Your task to perform on an android device: Go to Reddit.com Image 0: 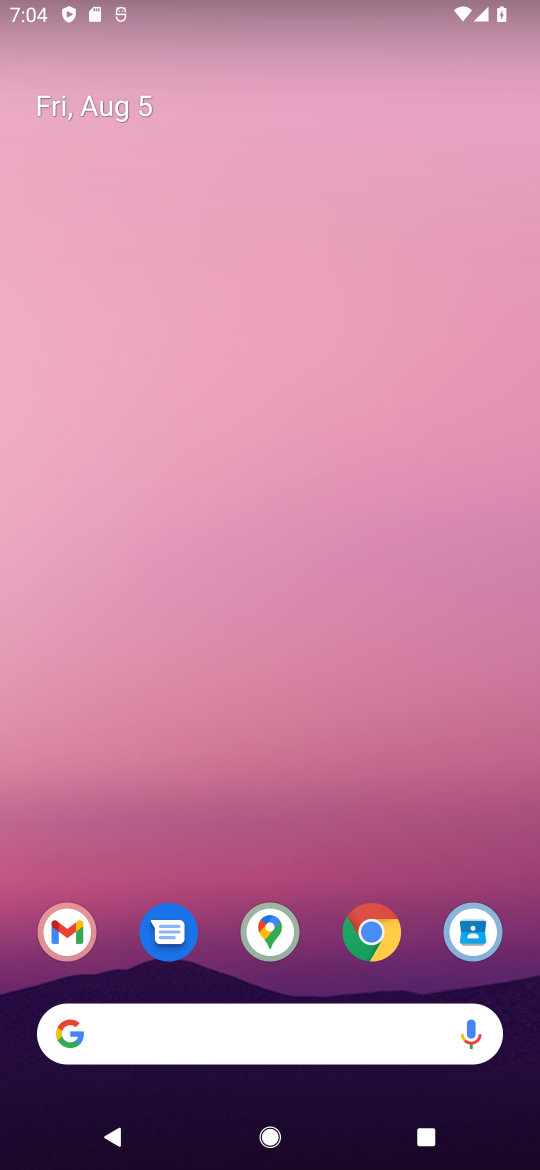
Step 0: drag from (330, 802) to (430, 117)
Your task to perform on an android device: Go to Reddit.com Image 1: 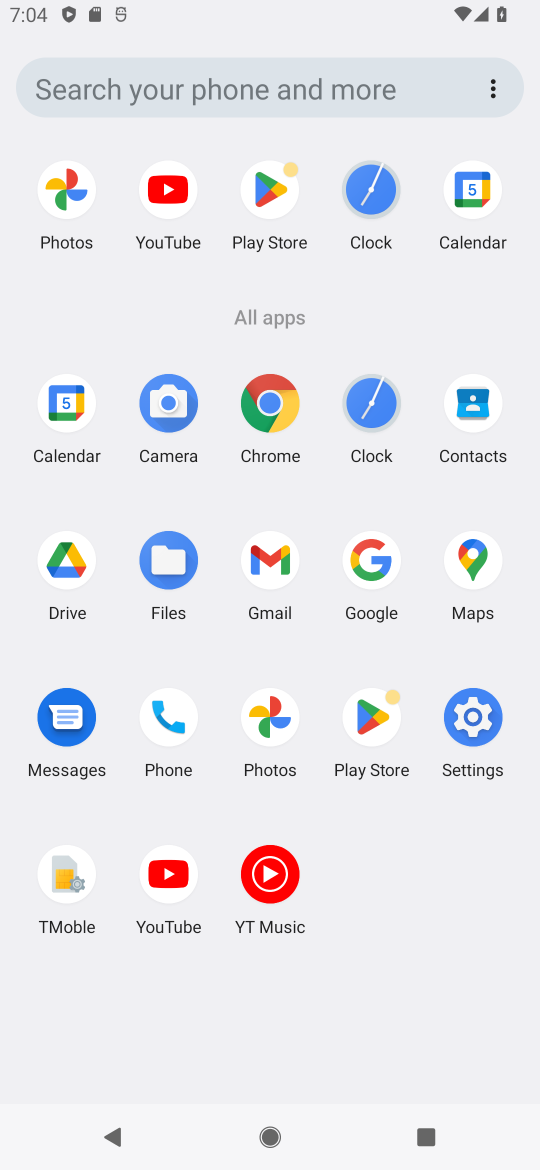
Step 1: click (269, 403)
Your task to perform on an android device: Go to Reddit.com Image 2: 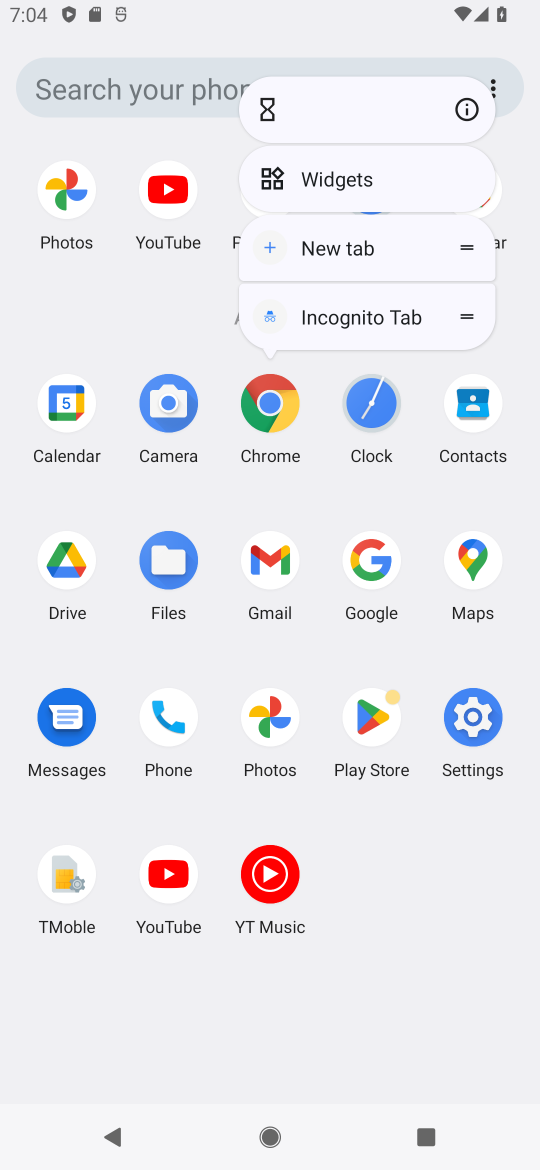
Step 2: click (270, 398)
Your task to perform on an android device: Go to Reddit.com Image 3: 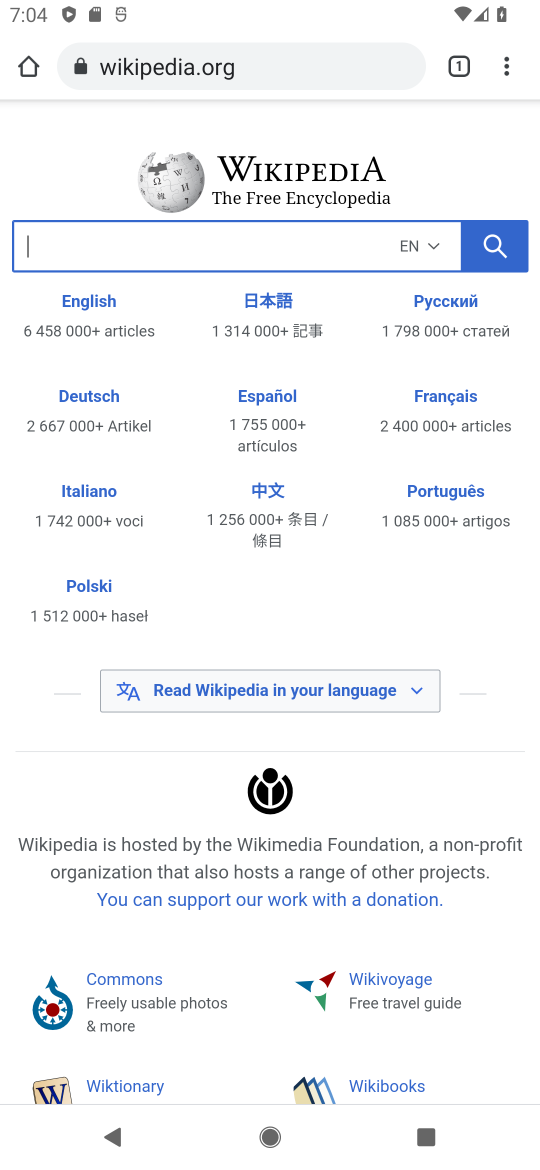
Step 3: click (328, 76)
Your task to perform on an android device: Go to Reddit.com Image 4: 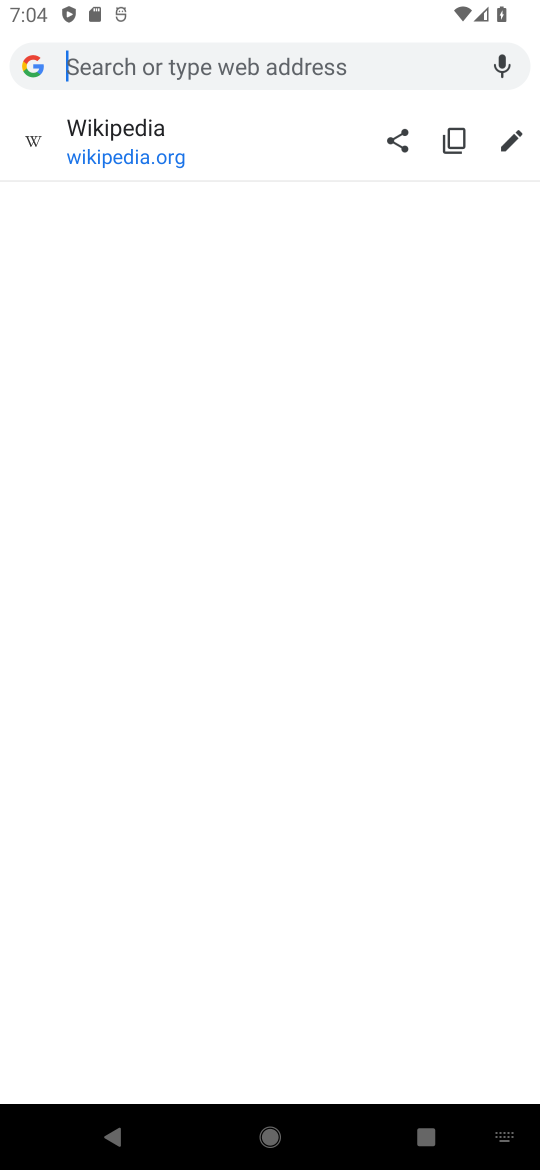
Step 4: type "reddit.com"
Your task to perform on an android device: Go to Reddit.com Image 5: 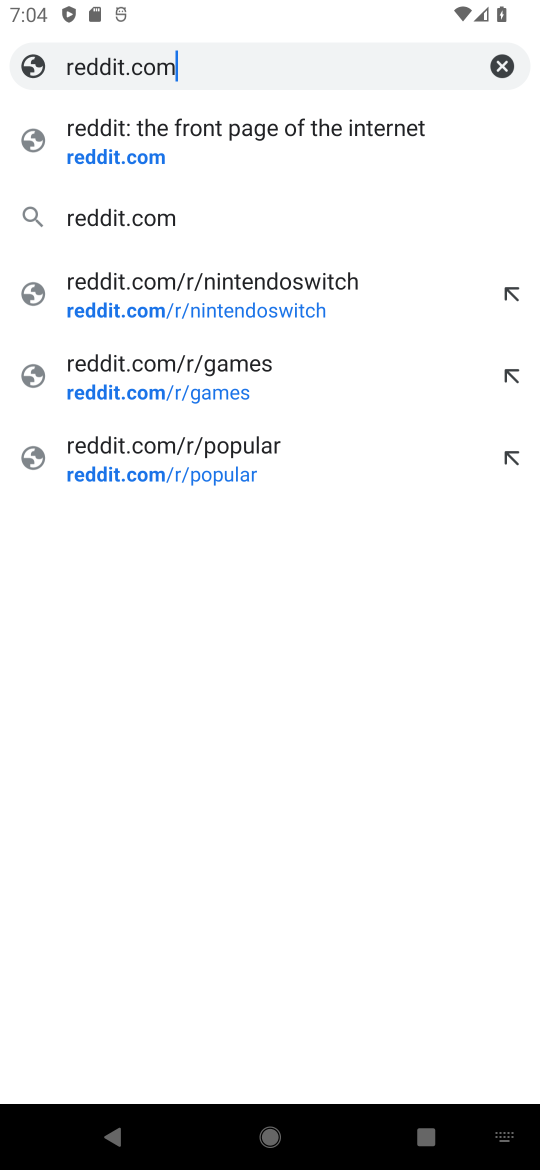
Step 5: click (159, 159)
Your task to perform on an android device: Go to Reddit.com Image 6: 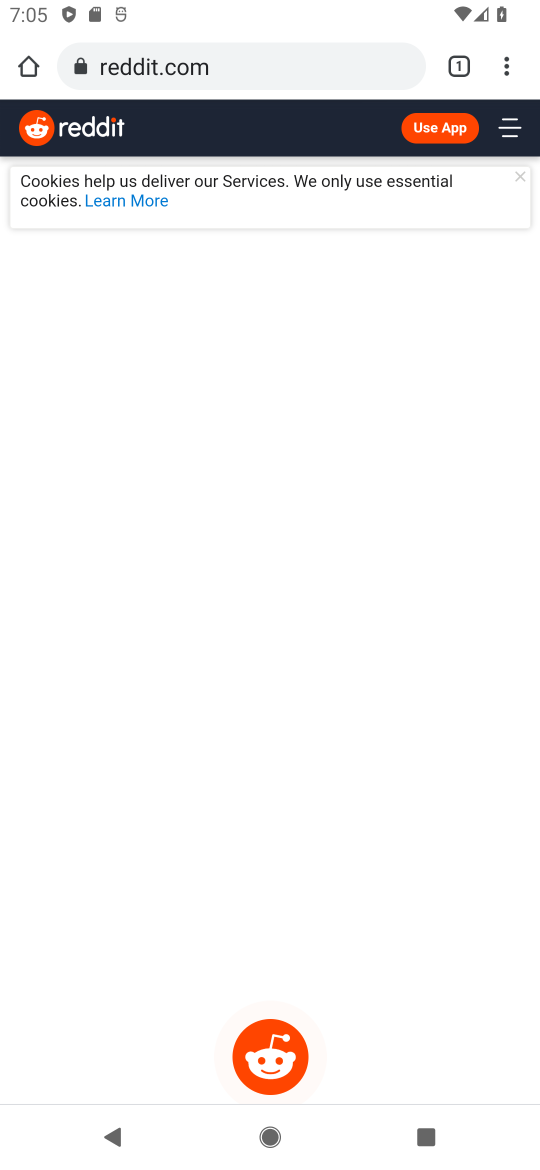
Step 6: task complete